Your task to perform on an android device: visit the assistant section in the google photos Image 0: 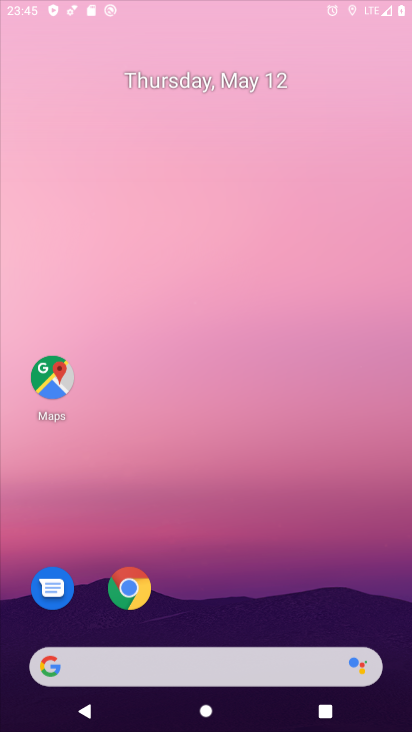
Step 0: click (271, 188)
Your task to perform on an android device: visit the assistant section in the google photos Image 1: 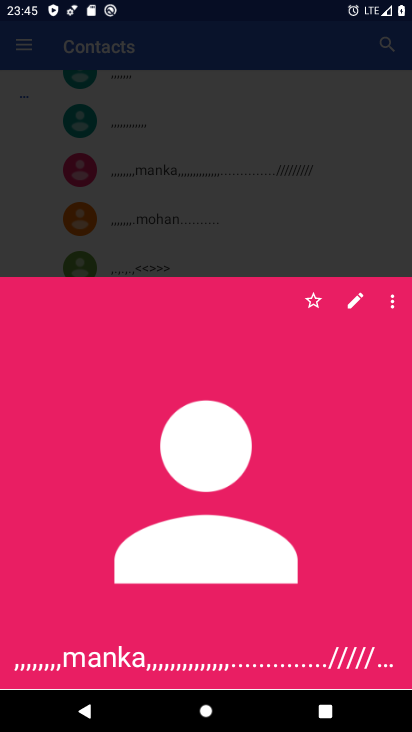
Step 1: drag from (206, 608) to (238, 234)
Your task to perform on an android device: visit the assistant section in the google photos Image 2: 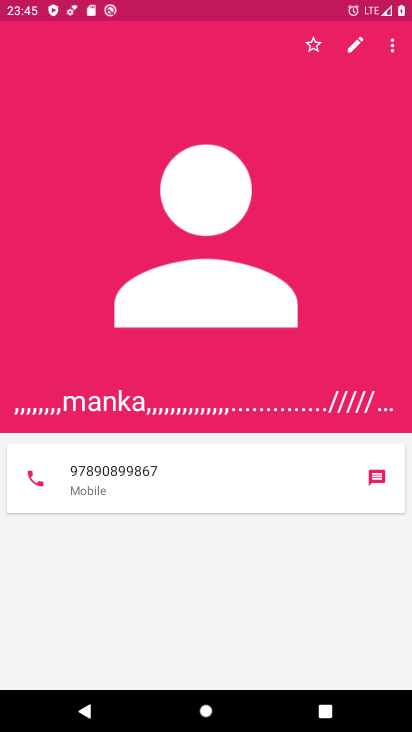
Step 2: press home button
Your task to perform on an android device: visit the assistant section in the google photos Image 3: 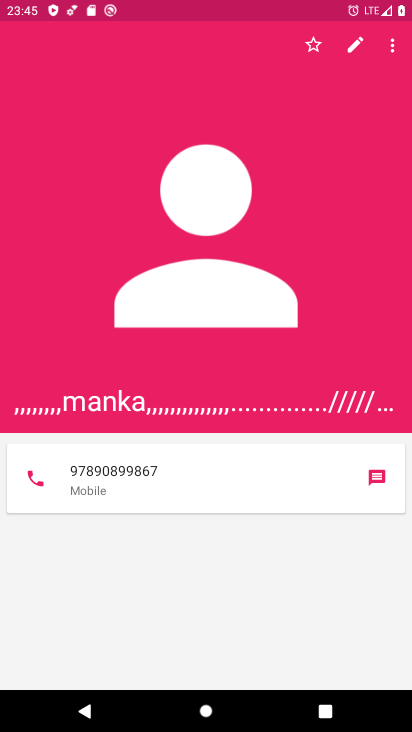
Step 3: press home button
Your task to perform on an android device: visit the assistant section in the google photos Image 4: 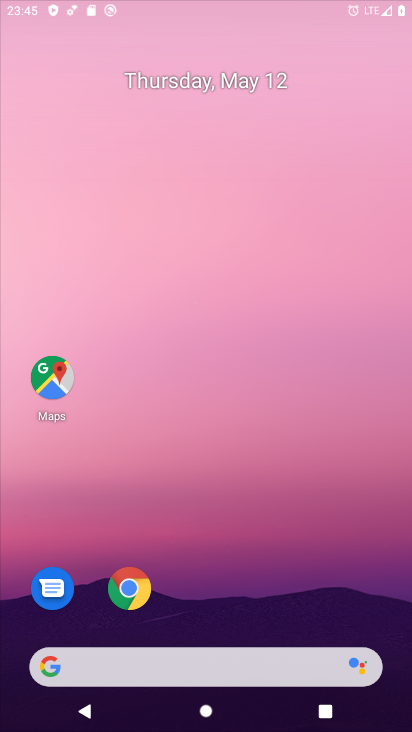
Step 4: drag from (210, 609) to (219, 236)
Your task to perform on an android device: visit the assistant section in the google photos Image 5: 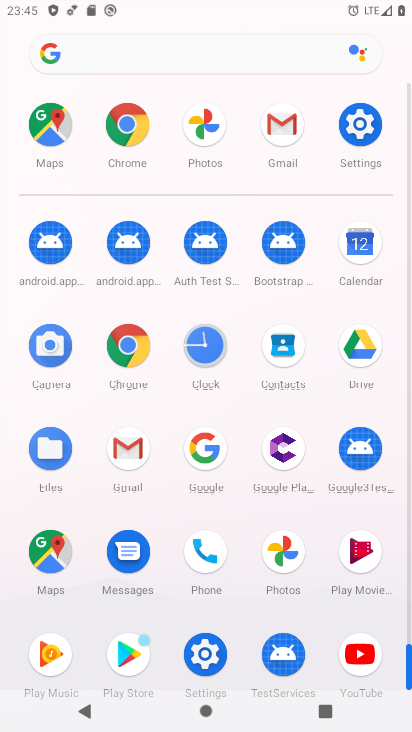
Step 5: click (288, 538)
Your task to perform on an android device: visit the assistant section in the google photos Image 6: 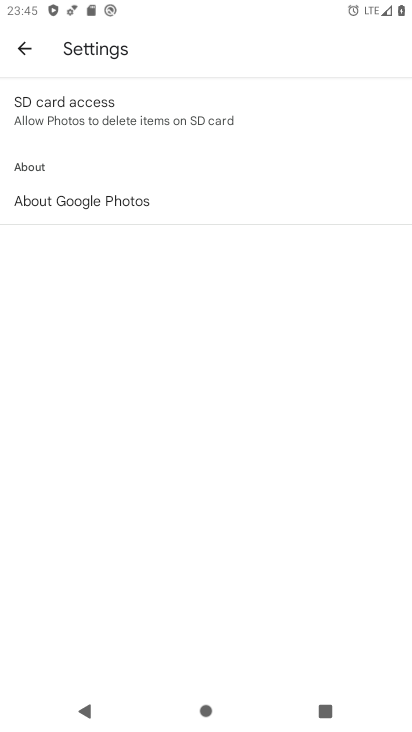
Step 6: press back button
Your task to perform on an android device: visit the assistant section in the google photos Image 7: 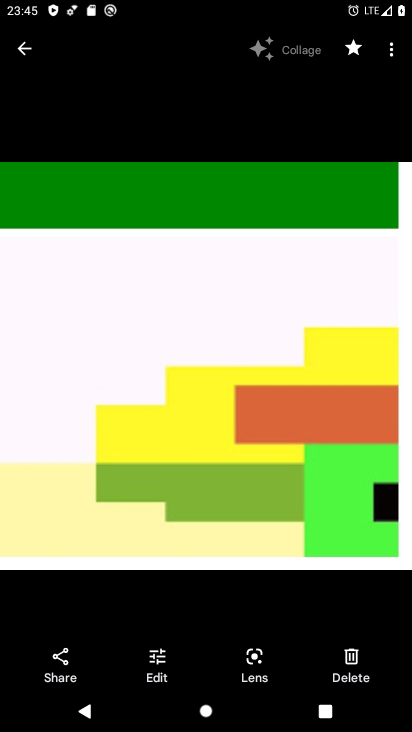
Step 7: click (25, 57)
Your task to perform on an android device: visit the assistant section in the google photos Image 8: 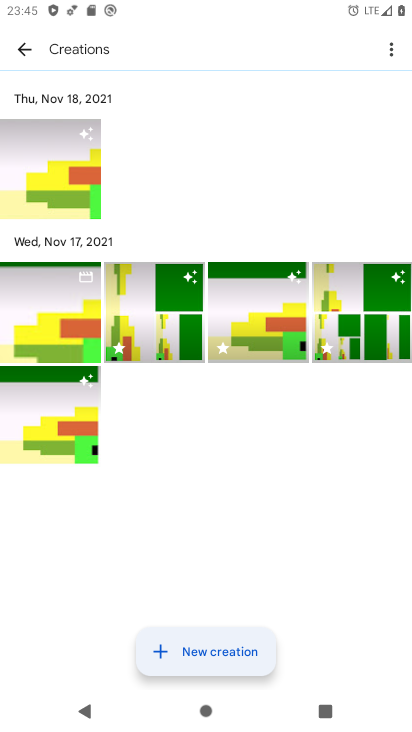
Step 8: click (0, 38)
Your task to perform on an android device: visit the assistant section in the google photos Image 9: 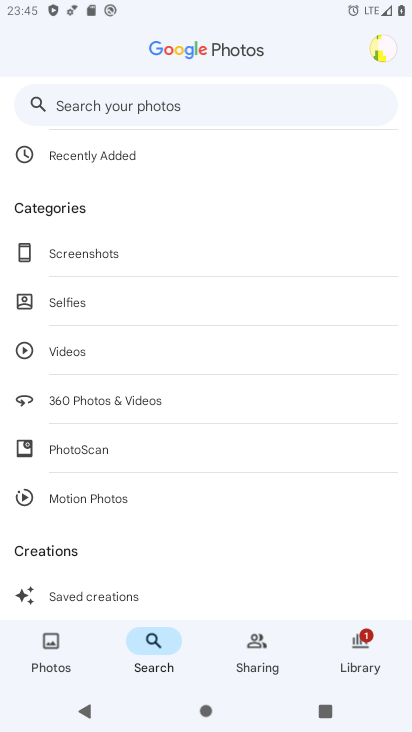
Step 9: drag from (173, 474) to (282, 99)
Your task to perform on an android device: visit the assistant section in the google photos Image 10: 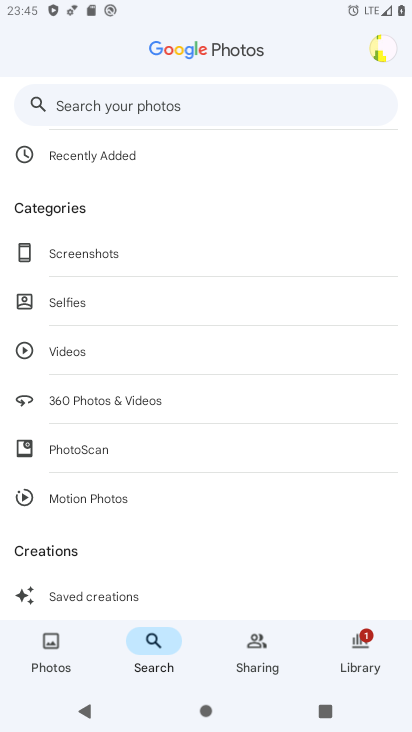
Step 10: drag from (173, 211) to (154, 581)
Your task to perform on an android device: visit the assistant section in the google photos Image 11: 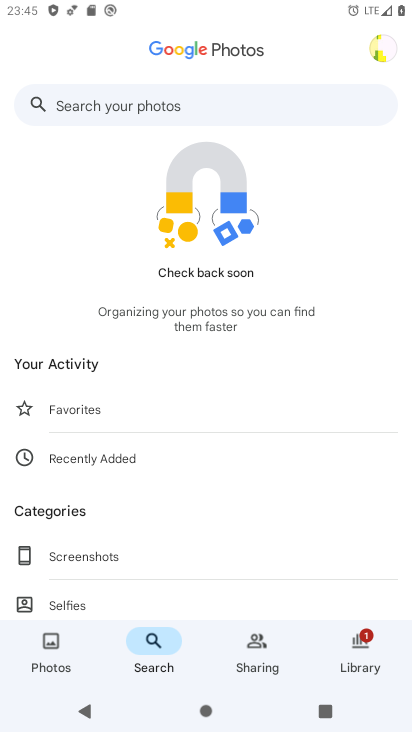
Step 11: drag from (162, 488) to (270, 240)
Your task to perform on an android device: visit the assistant section in the google photos Image 12: 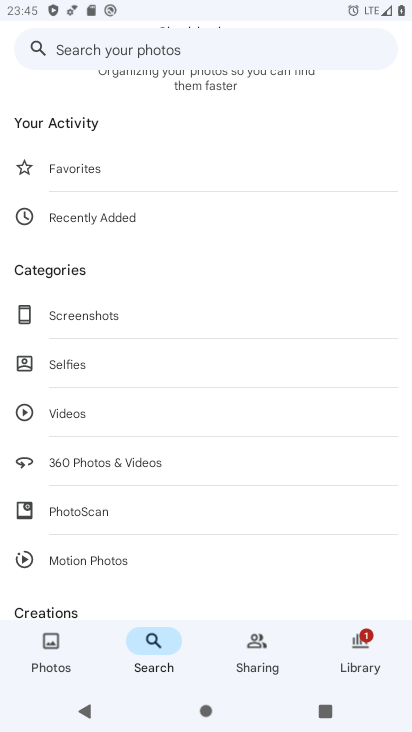
Step 12: drag from (151, 559) to (279, 155)
Your task to perform on an android device: visit the assistant section in the google photos Image 13: 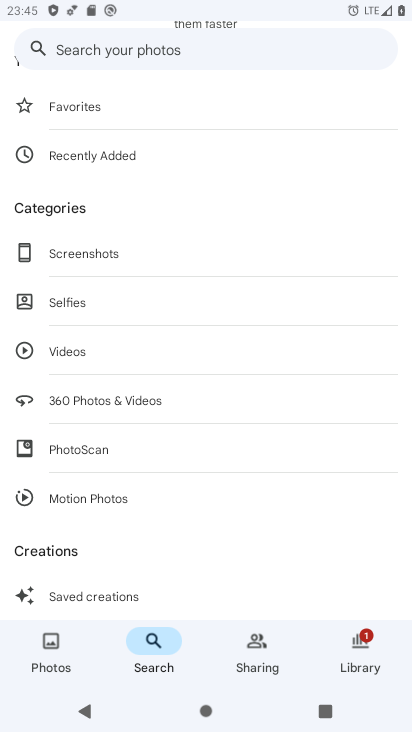
Step 13: drag from (260, 192) to (306, 722)
Your task to perform on an android device: visit the assistant section in the google photos Image 14: 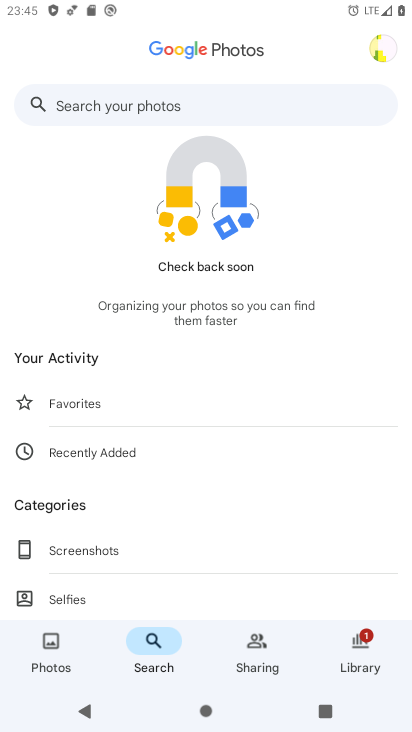
Step 14: click (386, 635)
Your task to perform on an android device: visit the assistant section in the google photos Image 15: 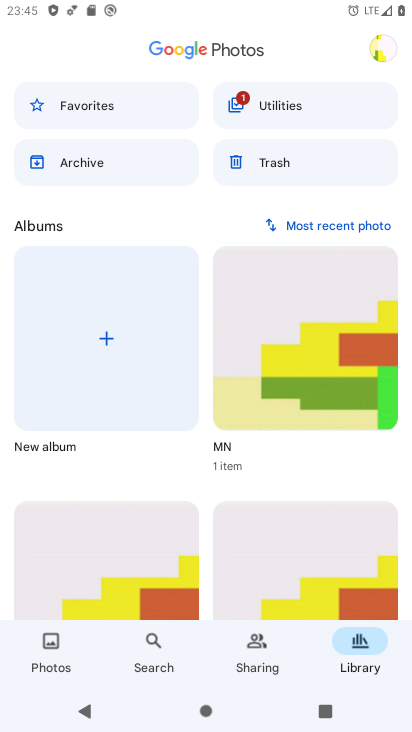
Step 15: click (370, 43)
Your task to perform on an android device: visit the assistant section in the google photos Image 16: 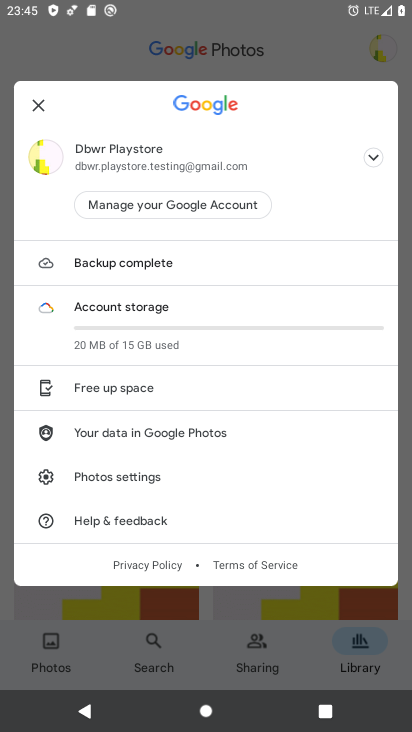
Step 16: task complete